Your task to perform on an android device: open device folders in google photos Image 0: 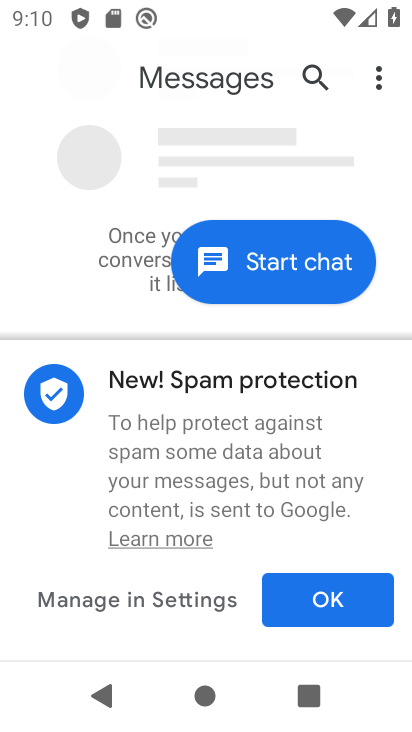
Step 0: press home button
Your task to perform on an android device: open device folders in google photos Image 1: 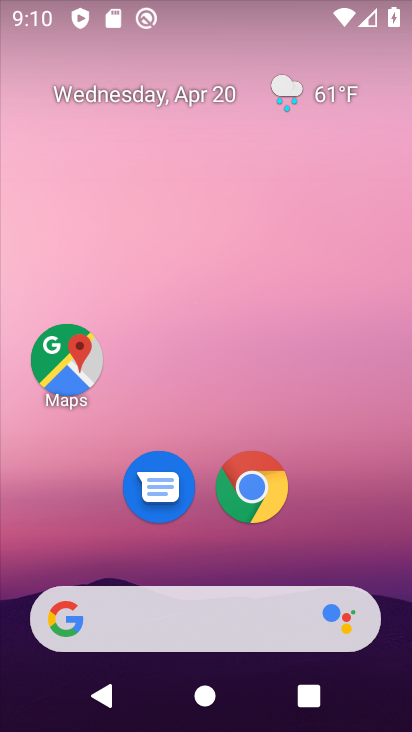
Step 1: drag from (310, 540) to (322, 83)
Your task to perform on an android device: open device folders in google photos Image 2: 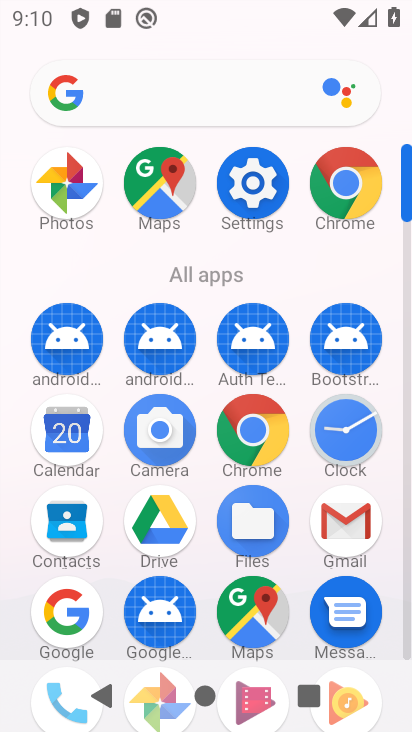
Step 2: drag from (209, 573) to (245, 334)
Your task to perform on an android device: open device folders in google photos Image 3: 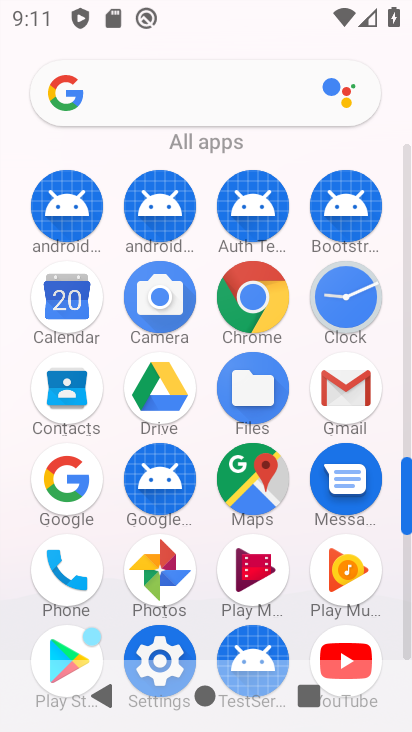
Step 3: click (166, 553)
Your task to perform on an android device: open device folders in google photos Image 4: 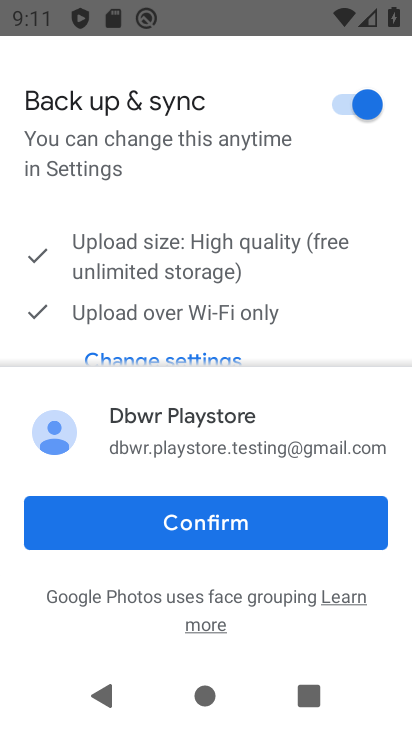
Step 4: click (162, 537)
Your task to perform on an android device: open device folders in google photos Image 5: 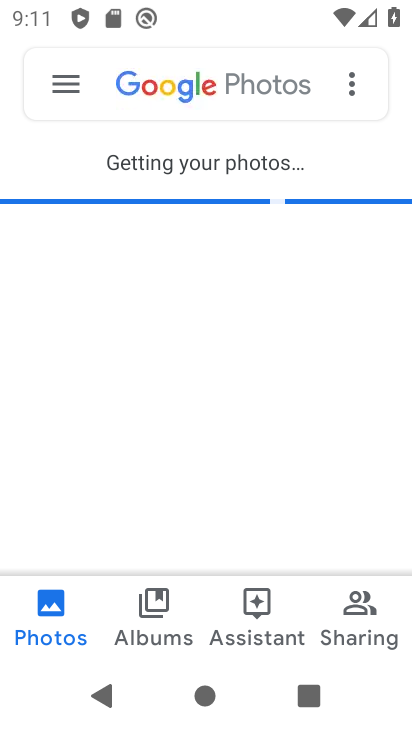
Step 5: click (75, 87)
Your task to perform on an android device: open device folders in google photos Image 6: 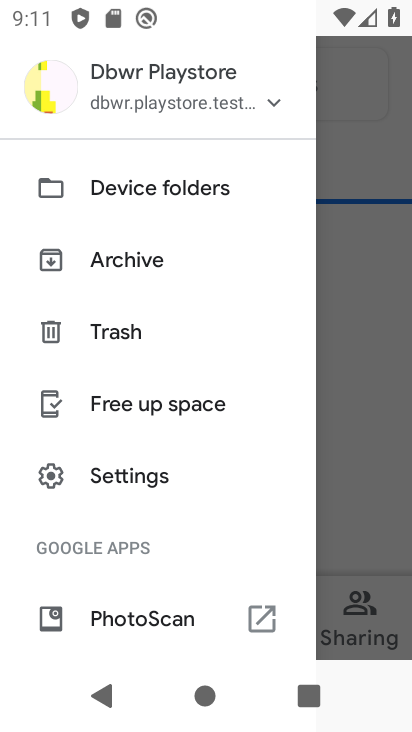
Step 6: click (116, 181)
Your task to perform on an android device: open device folders in google photos Image 7: 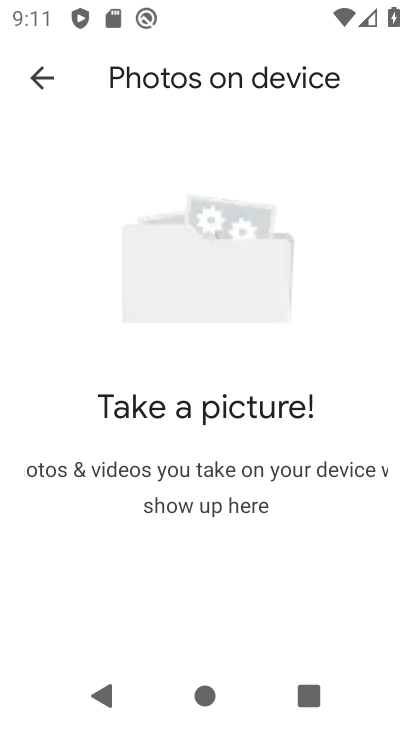
Step 7: task complete